Your task to perform on an android device: Open ESPN.com Image 0: 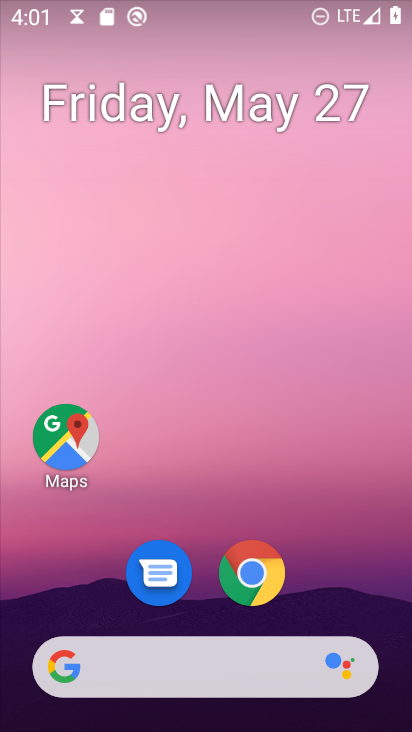
Step 0: click (261, 570)
Your task to perform on an android device: Open ESPN.com Image 1: 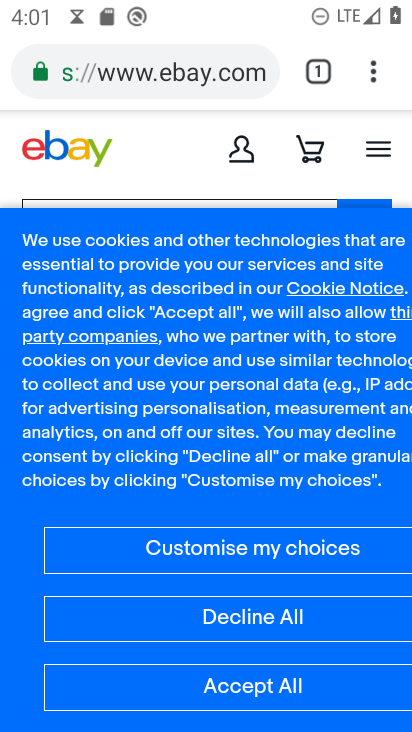
Step 1: click (221, 61)
Your task to perform on an android device: Open ESPN.com Image 2: 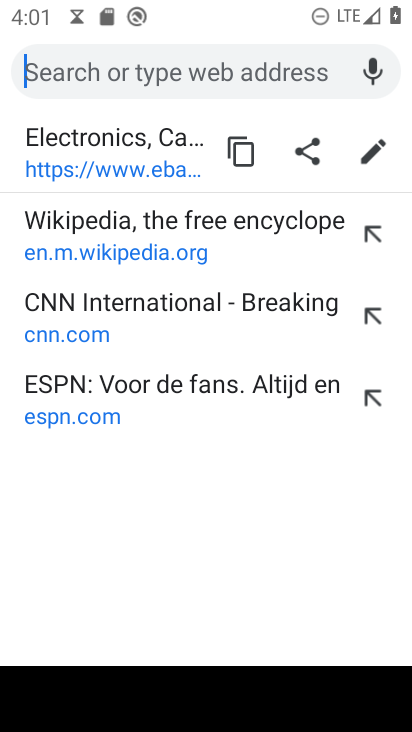
Step 2: type "ESPN.com"
Your task to perform on an android device: Open ESPN.com Image 3: 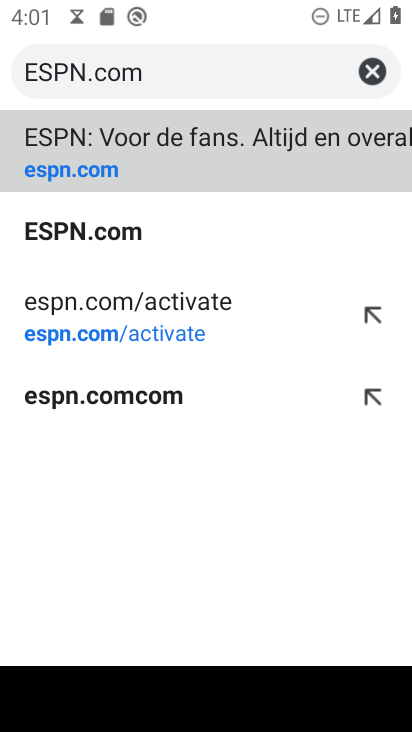
Step 3: click (64, 162)
Your task to perform on an android device: Open ESPN.com Image 4: 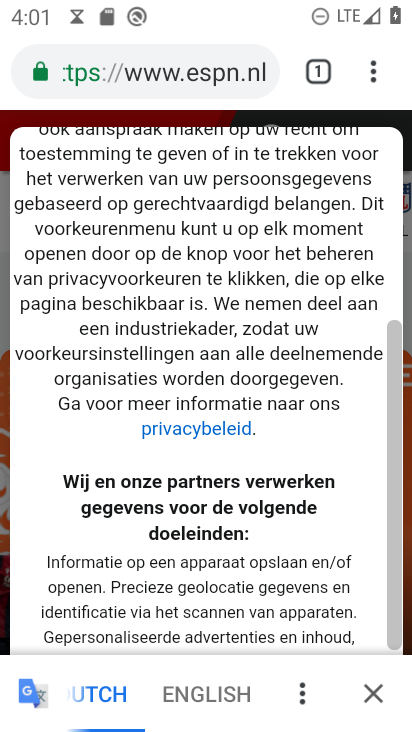
Step 4: task complete